Your task to perform on an android device: toggle notifications settings in the gmail app Image 0: 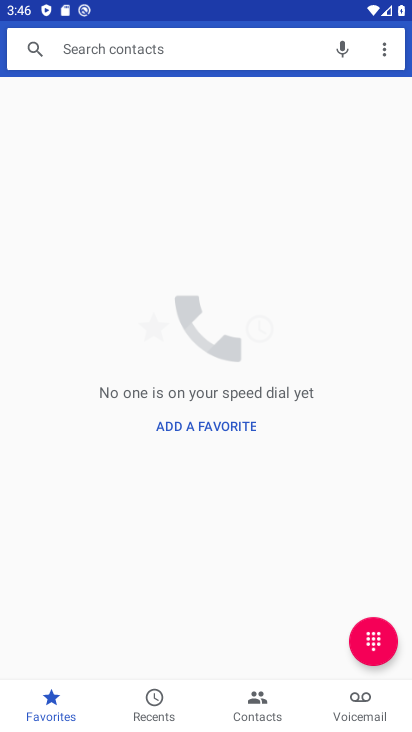
Step 0: press home button
Your task to perform on an android device: toggle notifications settings in the gmail app Image 1: 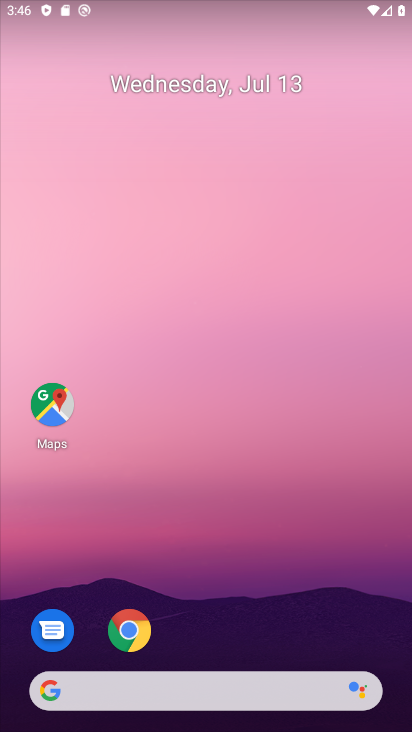
Step 1: drag from (190, 591) to (258, 223)
Your task to perform on an android device: toggle notifications settings in the gmail app Image 2: 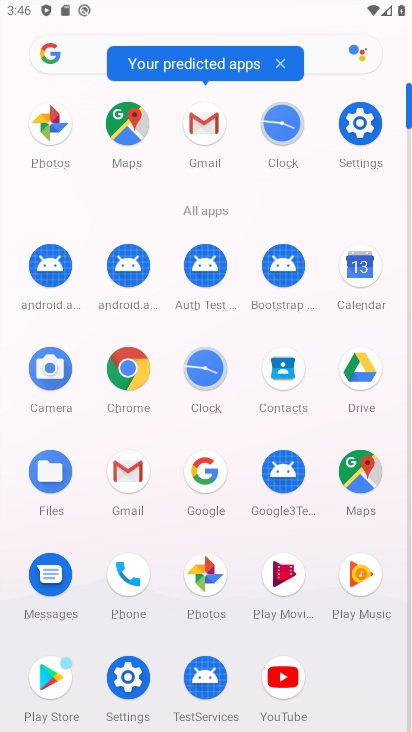
Step 2: click (203, 130)
Your task to perform on an android device: toggle notifications settings in the gmail app Image 3: 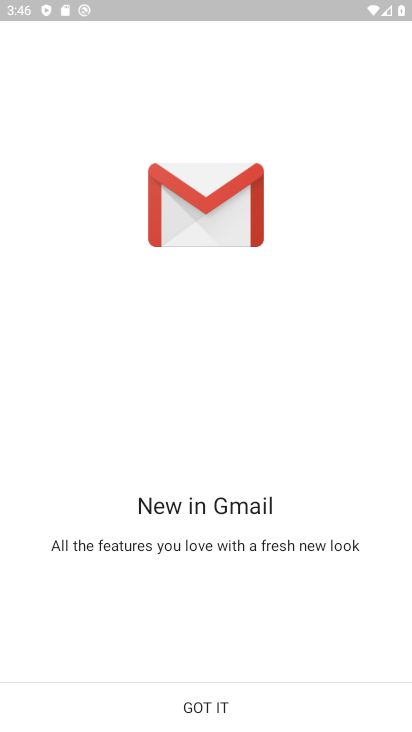
Step 3: click (238, 711)
Your task to perform on an android device: toggle notifications settings in the gmail app Image 4: 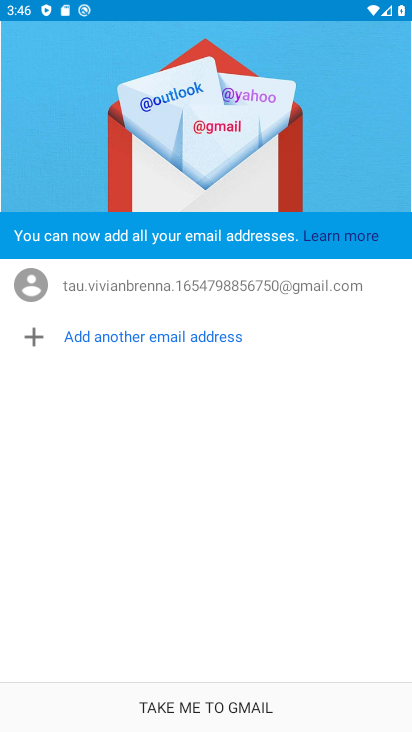
Step 4: click (238, 711)
Your task to perform on an android device: toggle notifications settings in the gmail app Image 5: 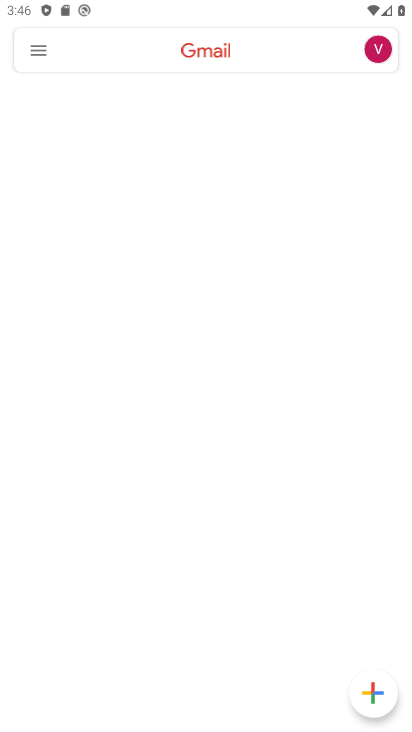
Step 5: click (42, 56)
Your task to perform on an android device: toggle notifications settings in the gmail app Image 6: 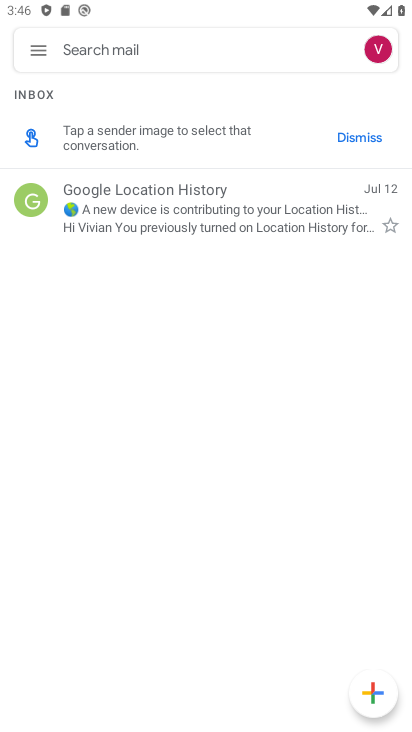
Step 6: click (46, 63)
Your task to perform on an android device: toggle notifications settings in the gmail app Image 7: 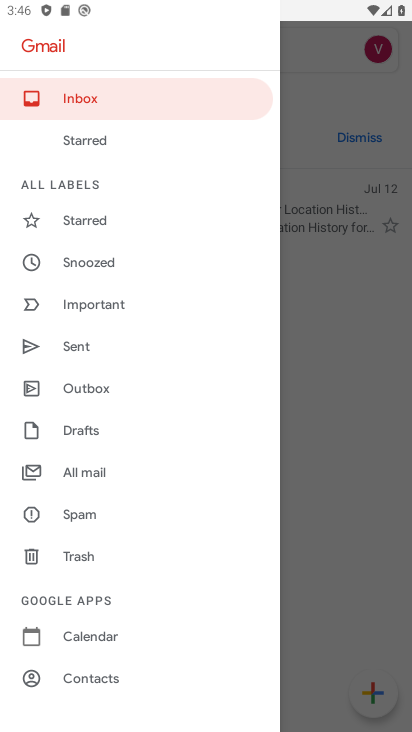
Step 7: drag from (72, 686) to (115, 410)
Your task to perform on an android device: toggle notifications settings in the gmail app Image 8: 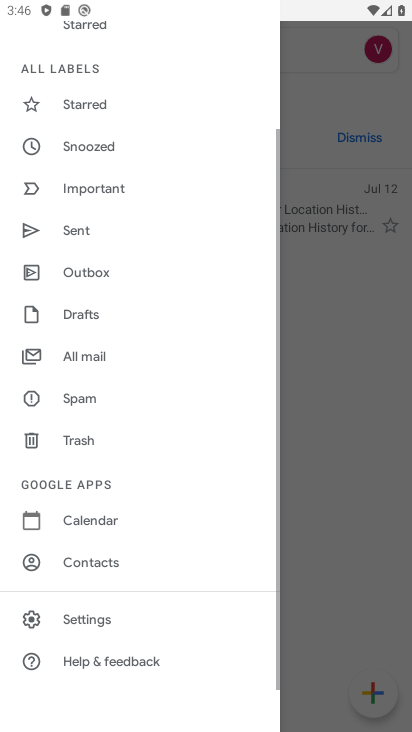
Step 8: click (99, 617)
Your task to perform on an android device: toggle notifications settings in the gmail app Image 9: 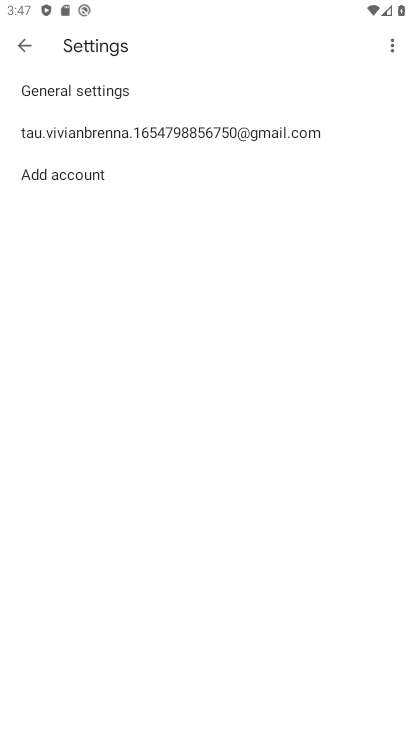
Step 9: click (108, 136)
Your task to perform on an android device: toggle notifications settings in the gmail app Image 10: 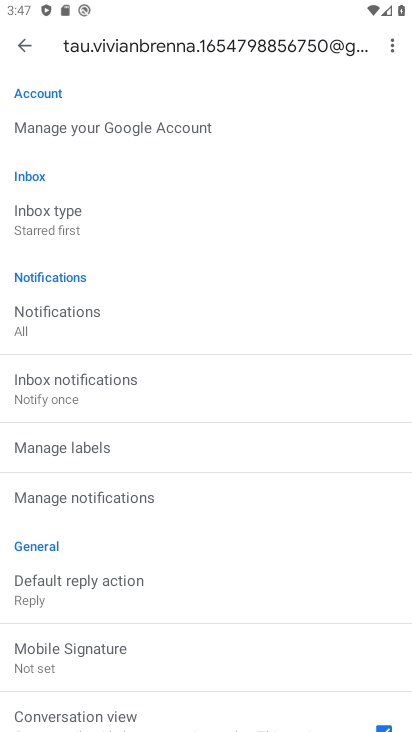
Step 10: click (96, 498)
Your task to perform on an android device: toggle notifications settings in the gmail app Image 11: 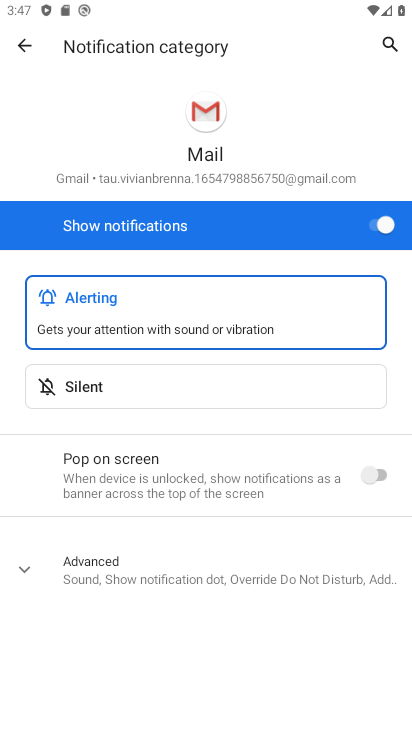
Step 11: click (376, 218)
Your task to perform on an android device: toggle notifications settings in the gmail app Image 12: 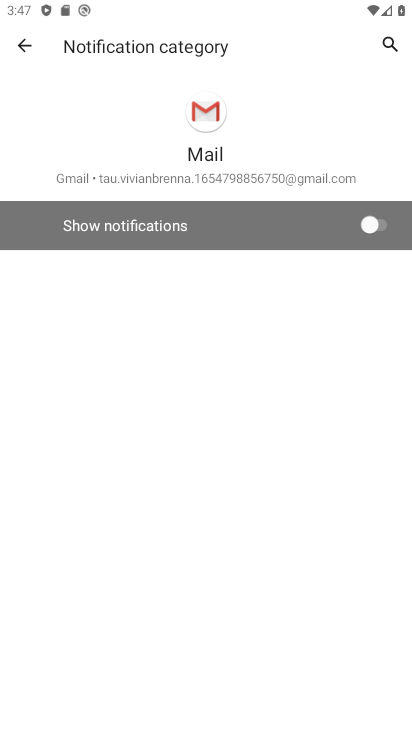
Step 12: task complete